Your task to perform on an android device: Go to eBay Image 0: 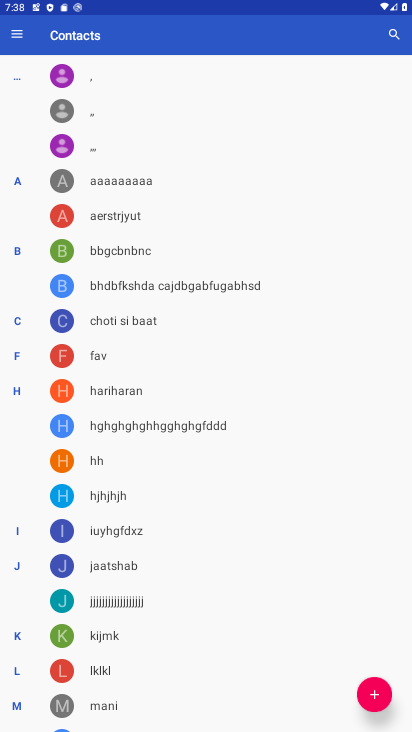
Step 0: press home button
Your task to perform on an android device: Go to eBay Image 1: 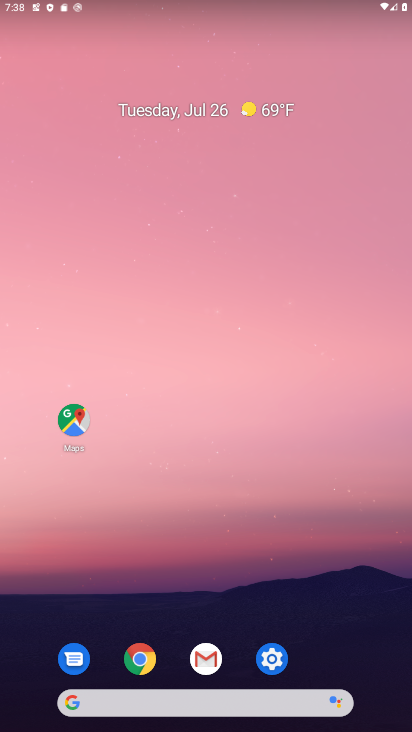
Step 1: click (142, 663)
Your task to perform on an android device: Go to eBay Image 2: 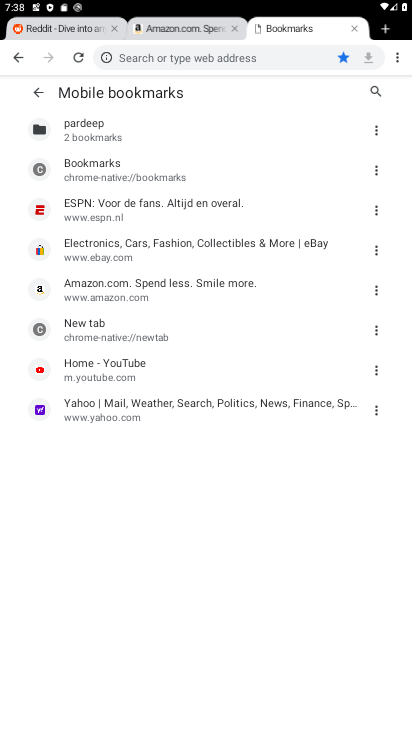
Step 2: click (386, 30)
Your task to perform on an android device: Go to eBay Image 3: 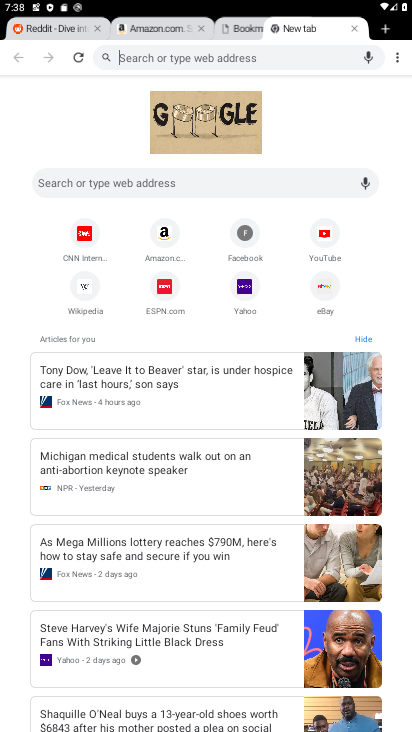
Step 3: click (317, 288)
Your task to perform on an android device: Go to eBay Image 4: 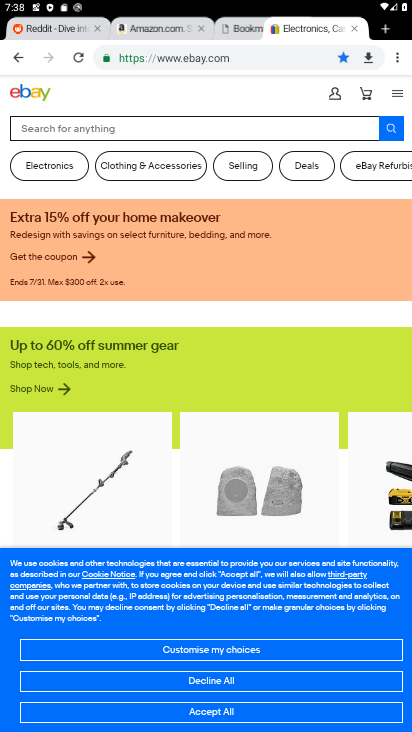
Step 4: task complete